Your task to perform on an android device: open sync settings in chrome Image 0: 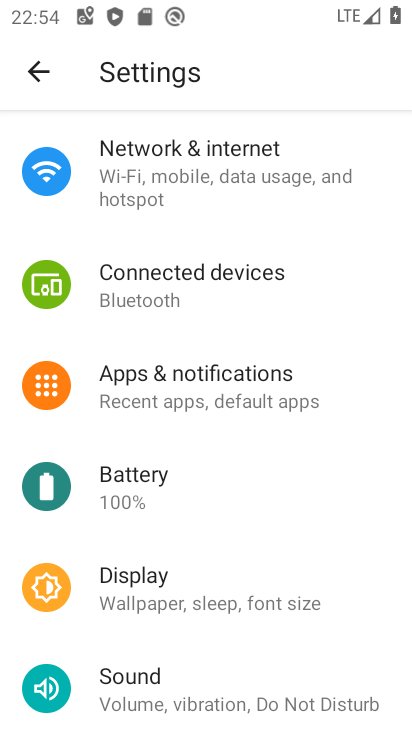
Step 0: press home button
Your task to perform on an android device: open sync settings in chrome Image 1: 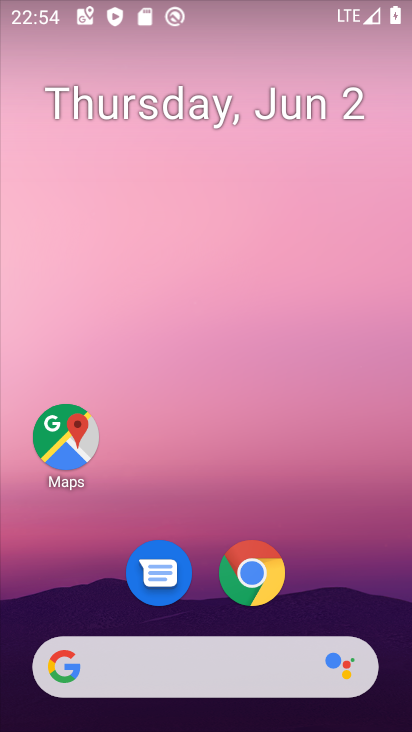
Step 1: click (243, 573)
Your task to perform on an android device: open sync settings in chrome Image 2: 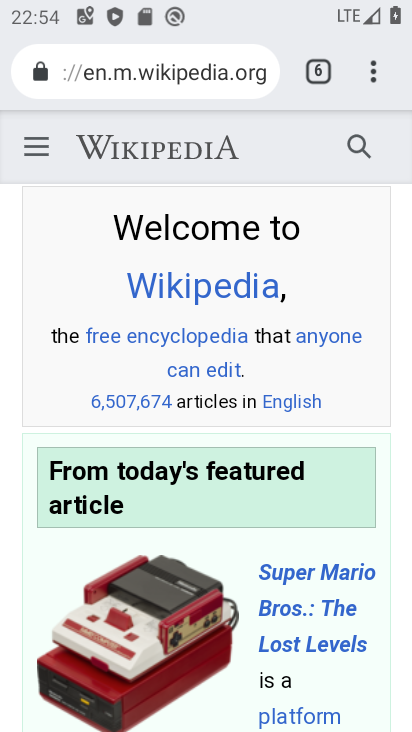
Step 2: click (364, 80)
Your task to perform on an android device: open sync settings in chrome Image 3: 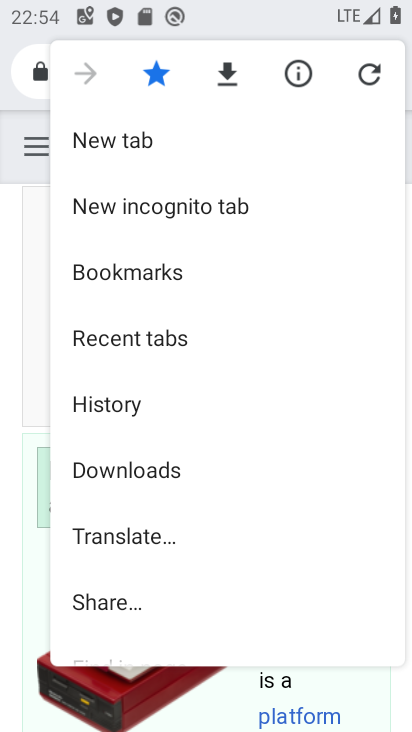
Step 3: drag from (228, 567) to (222, 380)
Your task to perform on an android device: open sync settings in chrome Image 4: 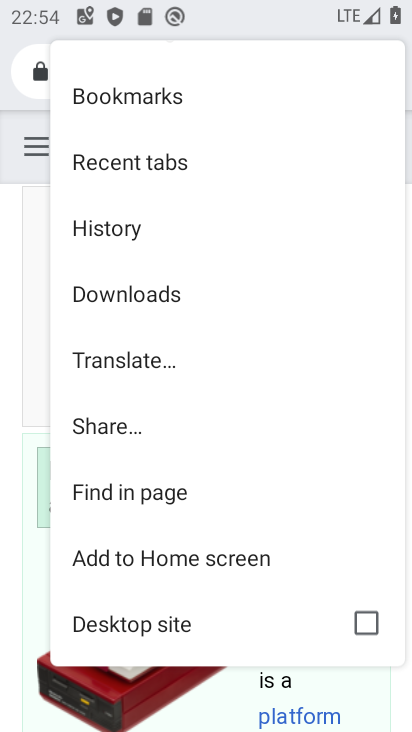
Step 4: drag from (275, 631) to (287, 429)
Your task to perform on an android device: open sync settings in chrome Image 5: 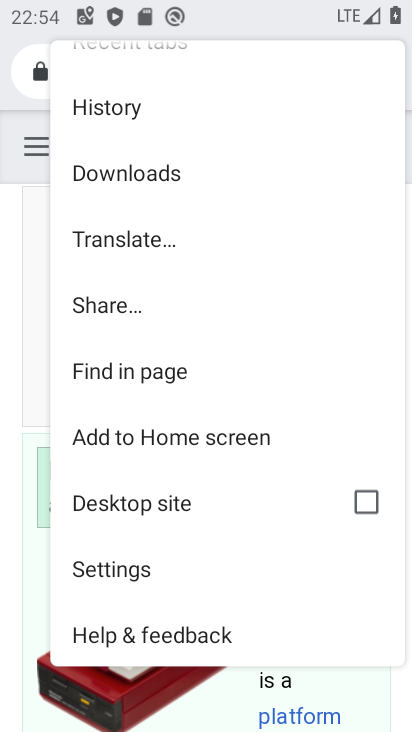
Step 5: click (127, 564)
Your task to perform on an android device: open sync settings in chrome Image 6: 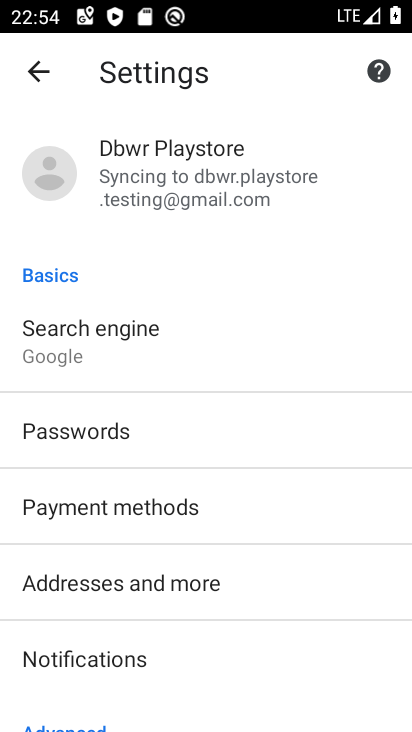
Step 6: drag from (222, 571) to (200, 420)
Your task to perform on an android device: open sync settings in chrome Image 7: 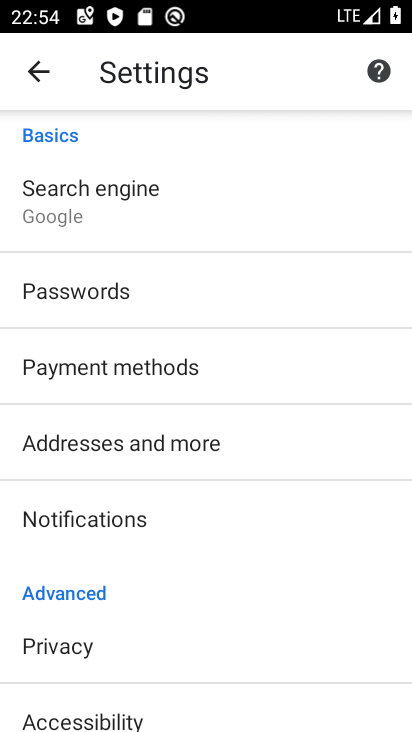
Step 7: drag from (211, 653) to (177, 379)
Your task to perform on an android device: open sync settings in chrome Image 8: 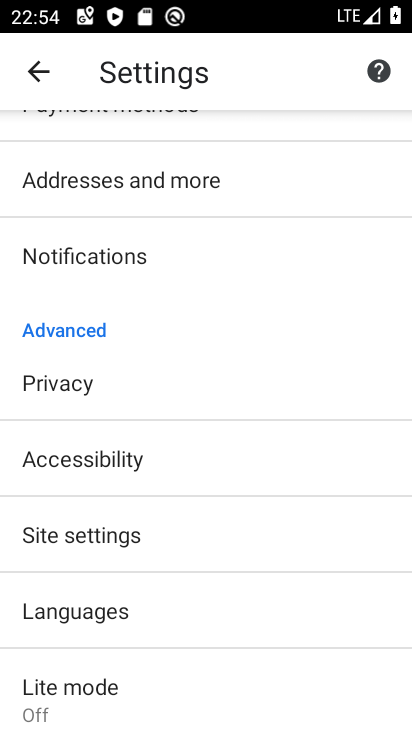
Step 8: click (91, 370)
Your task to perform on an android device: open sync settings in chrome Image 9: 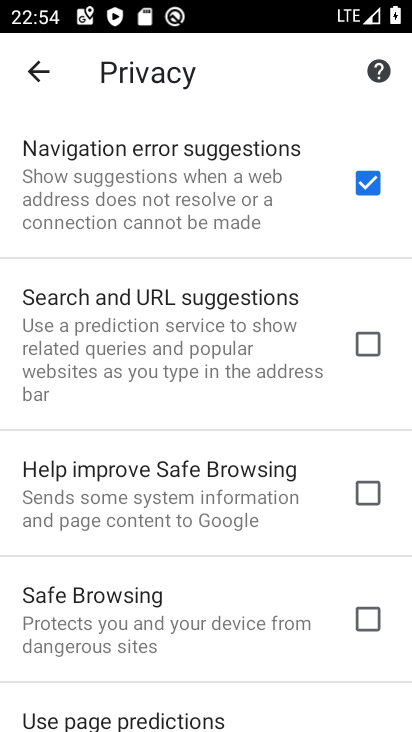
Step 9: drag from (229, 503) to (188, 179)
Your task to perform on an android device: open sync settings in chrome Image 10: 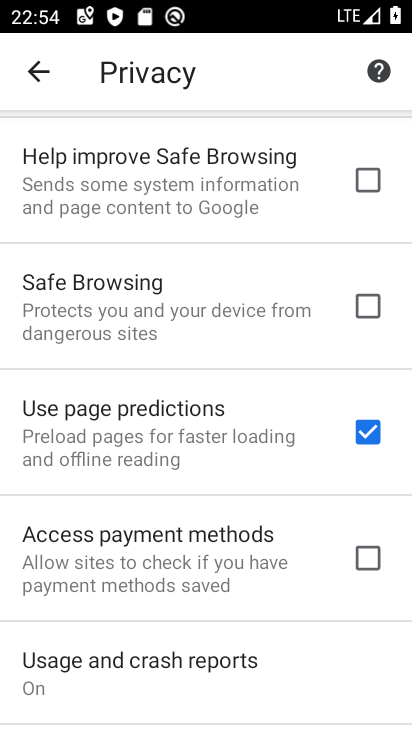
Step 10: drag from (229, 543) to (162, 45)
Your task to perform on an android device: open sync settings in chrome Image 11: 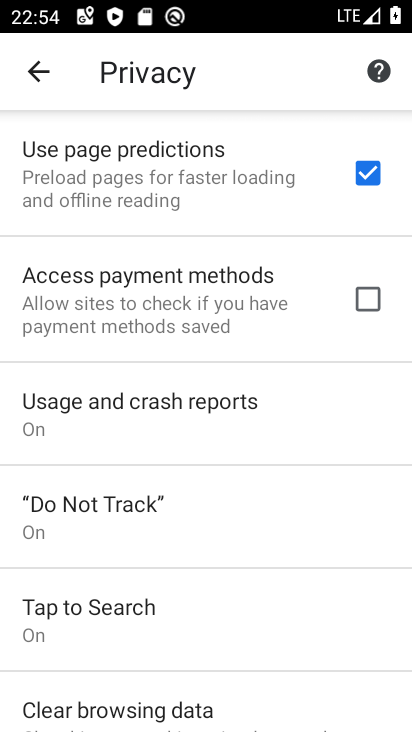
Step 11: click (32, 72)
Your task to perform on an android device: open sync settings in chrome Image 12: 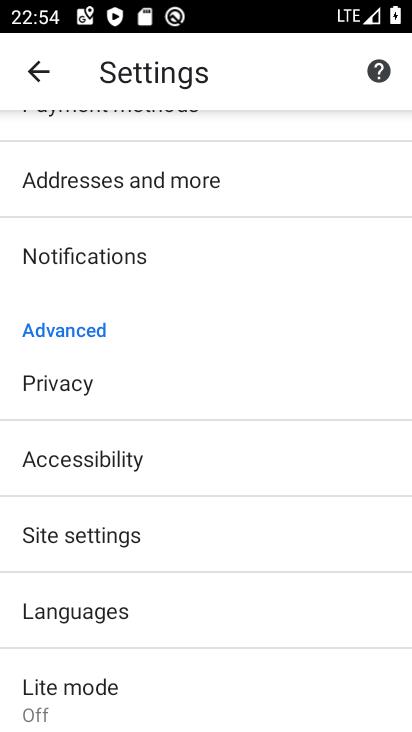
Step 12: click (123, 451)
Your task to perform on an android device: open sync settings in chrome Image 13: 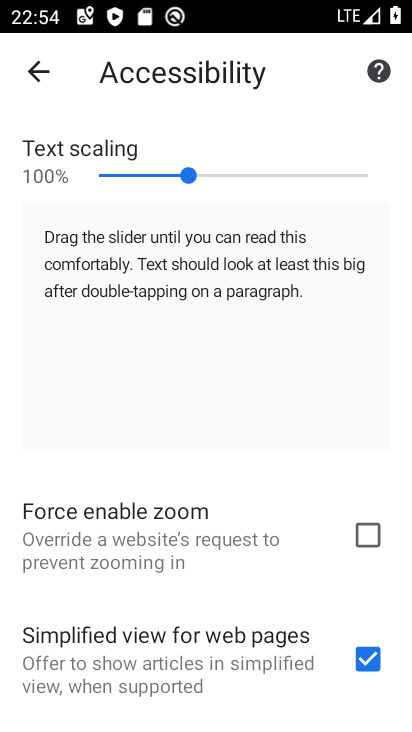
Step 13: press back button
Your task to perform on an android device: open sync settings in chrome Image 14: 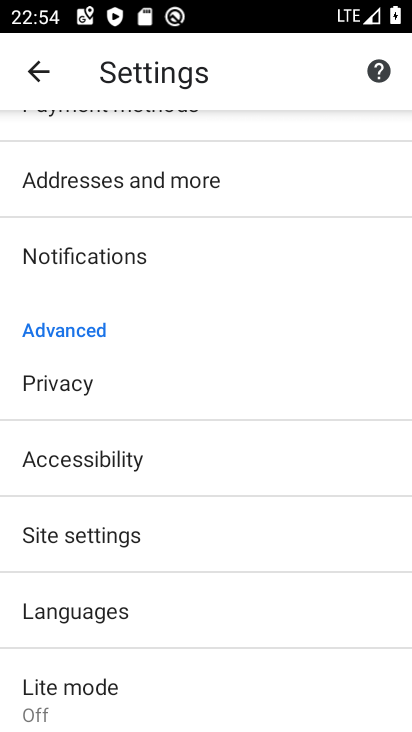
Step 14: click (224, 542)
Your task to perform on an android device: open sync settings in chrome Image 15: 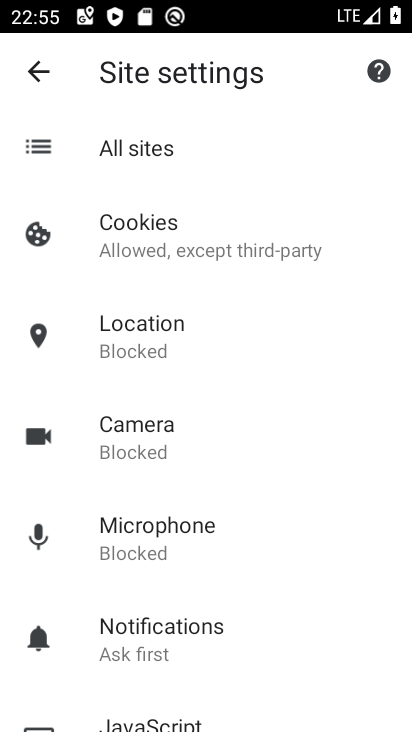
Step 15: drag from (249, 604) to (221, 378)
Your task to perform on an android device: open sync settings in chrome Image 16: 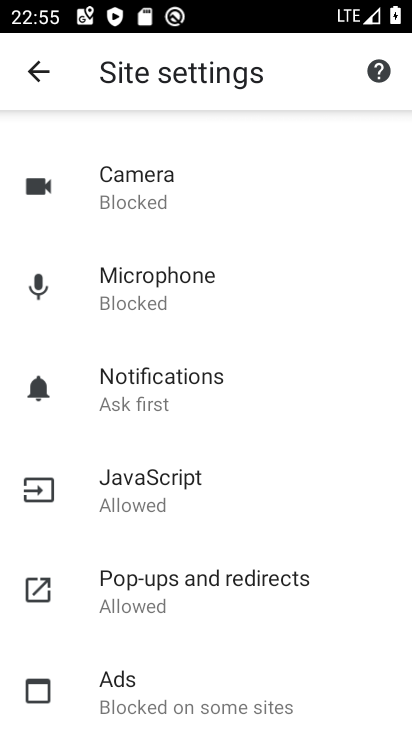
Step 16: drag from (251, 639) to (206, 261)
Your task to perform on an android device: open sync settings in chrome Image 17: 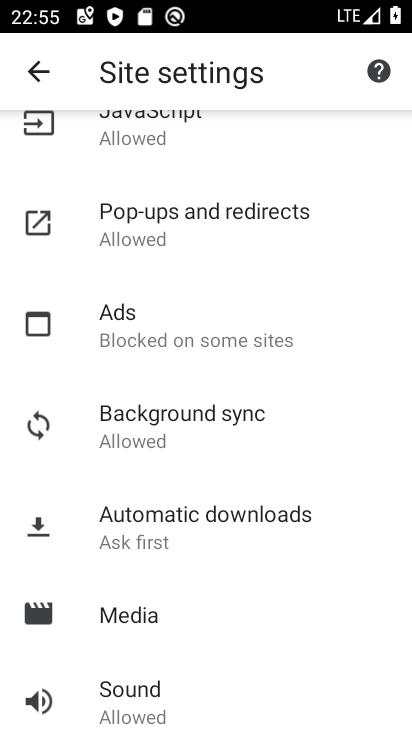
Step 17: click (222, 426)
Your task to perform on an android device: open sync settings in chrome Image 18: 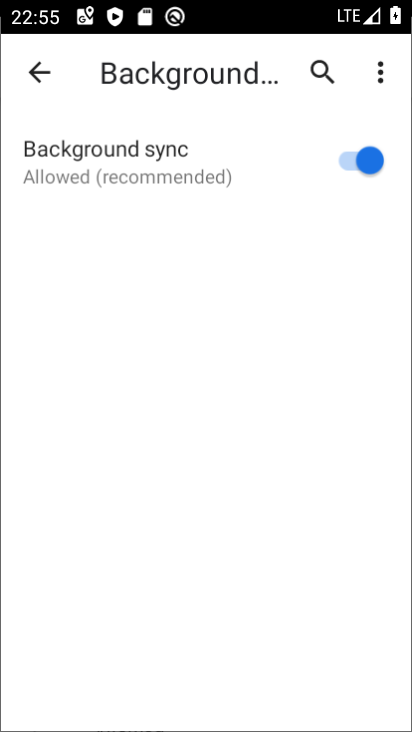
Step 18: click (222, 426)
Your task to perform on an android device: open sync settings in chrome Image 19: 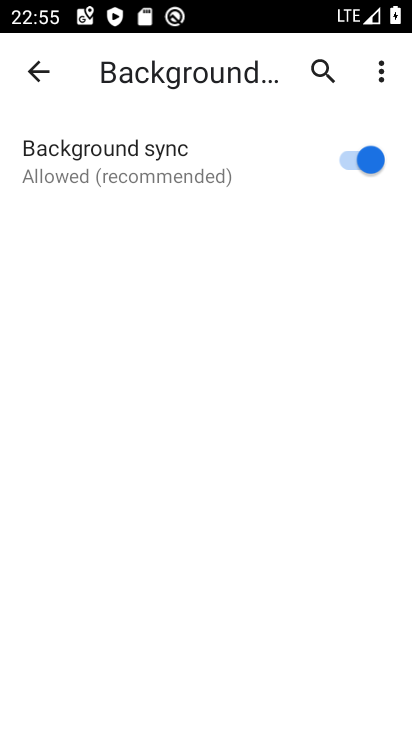
Step 19: task complete